Your task to perform on an android device: empty trash in the gmail app Image 0: 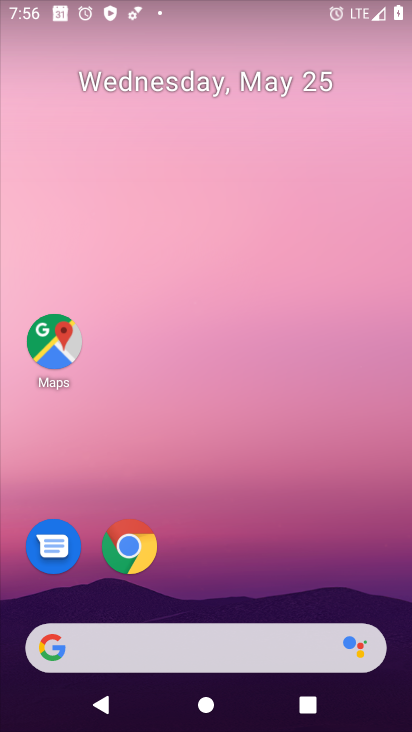
Step 0: drag from (394, 610) to (389, 261)
Your task to perform on an android device: empty trash in the gmail app Image 1: 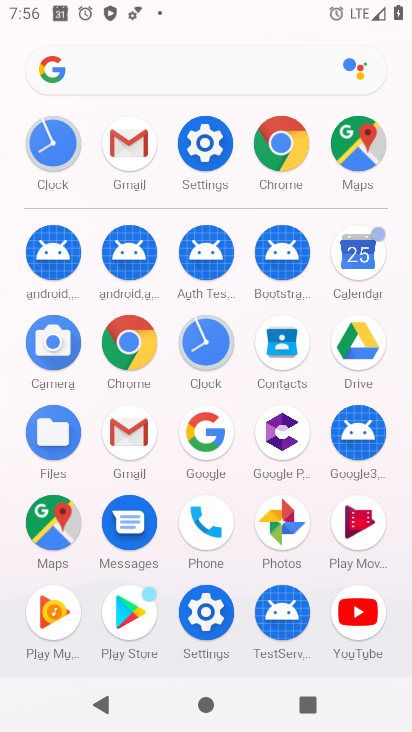
Step 1: click (124, 448)
Your task to perform on an android device: empty trash in the gmail app Image 2: 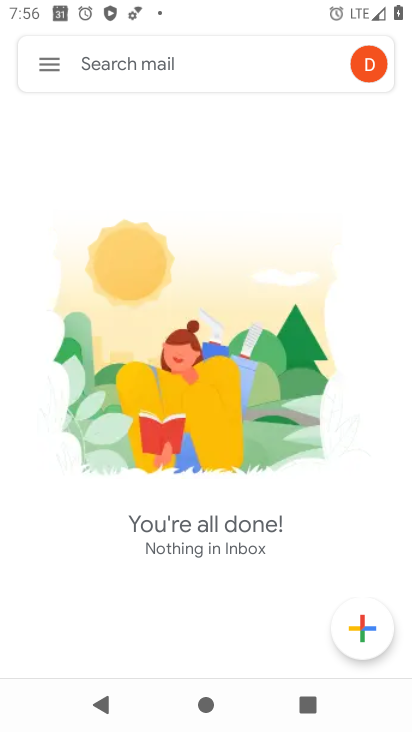
Step 2: click (55, 70)
Your task to perform on an android device: empty trash in the gmail app Image 3: 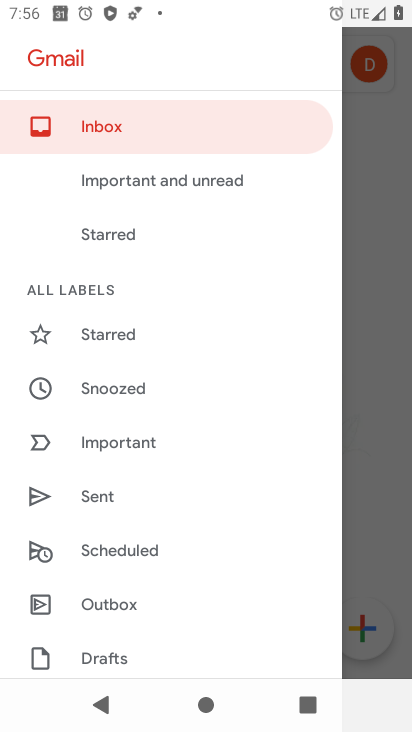
Step 3: drag from (282, 363) to (283, 302)
Your task to perform on an android device: empty trash in the gmail app Image 4: 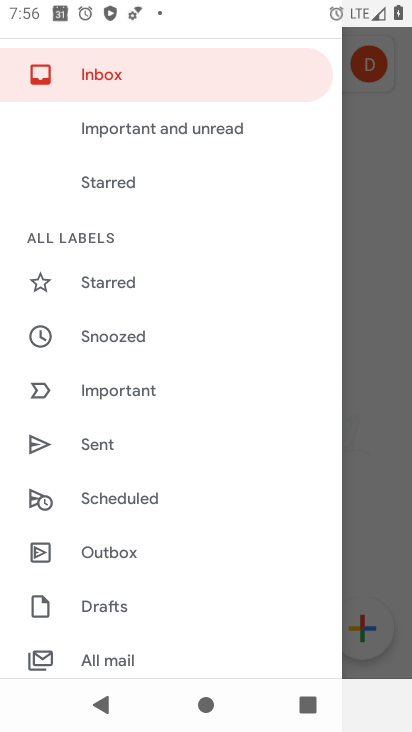
Step 4: drag from (283, 373) to (288, 302)
Your task to perform on an android device: empty trash in the gmail app Image 5: 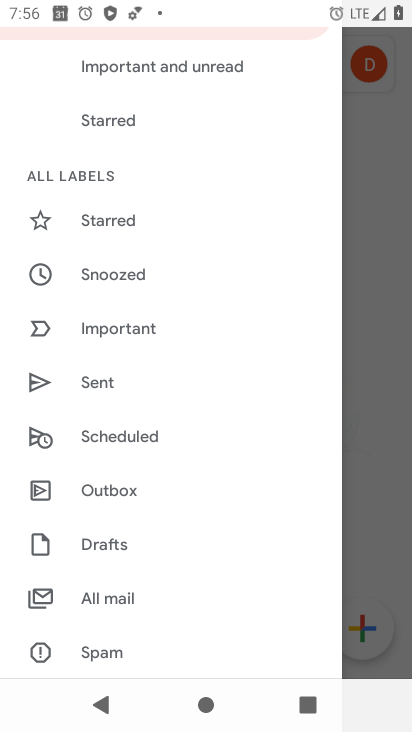
Step 5: drag from (282, 384) to (282, 321)
Your task to perform on an android device: empty trash in the gmail app Image 6: 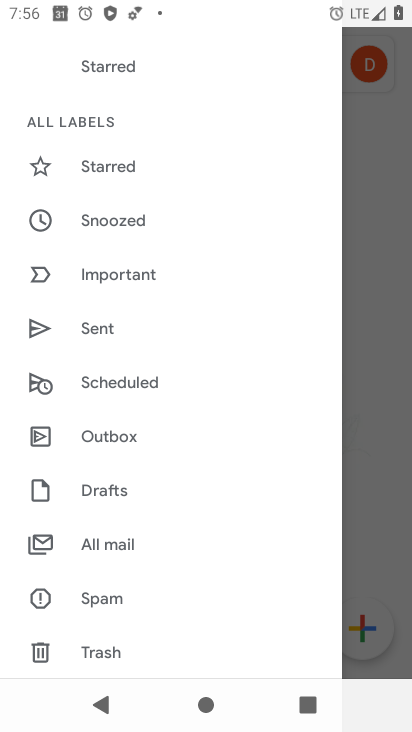
Step 6: drag from (284, 393) to (284, 331)
Your task to perform on an android device: empty trash in the gmail app Image 7: 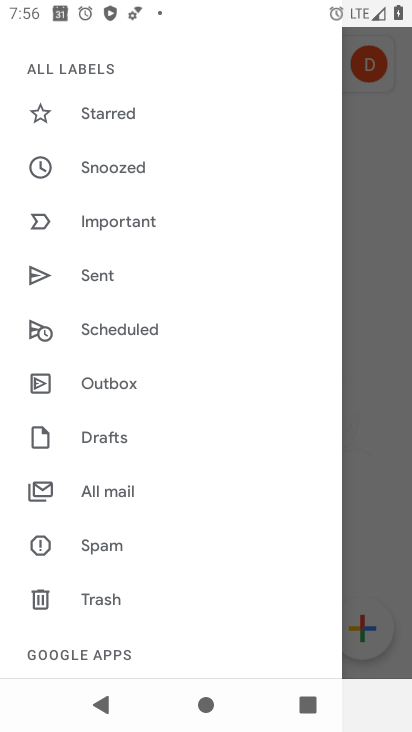
Step 7: drag from (283, 387) to (293, 316)
Your task to perform on an android device: empty trash in the gmail app Image 8: 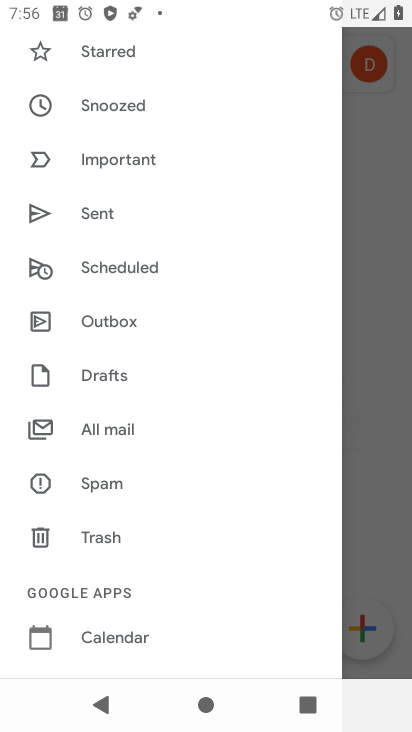
Step 8: drag from (288, 443) to (294, 387)
Your task to perform on an android device: empty trash in the gmail app Image 9: 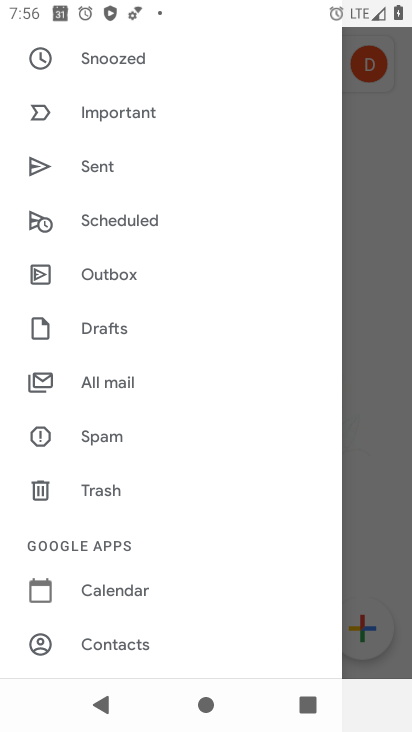
Step 9: drag from (288, 447) to (293, 384)
Your task to perform on an android device: empty trash in the gmail app Image 10: 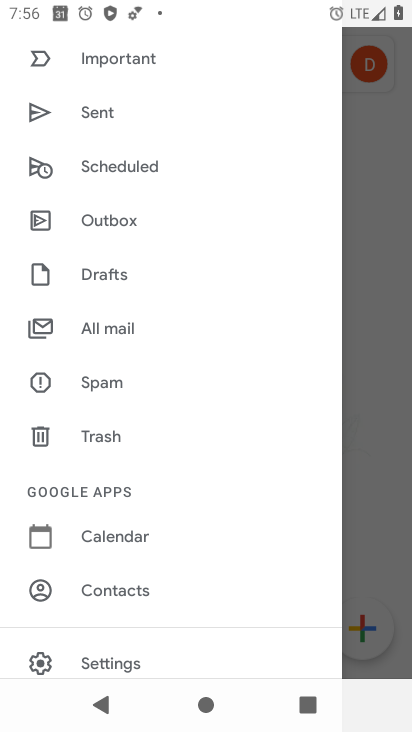
Step 10: drag from (292, 427) to (290, 362)
Your task to perform on an android device: empty trash in the gmail app Image 11: 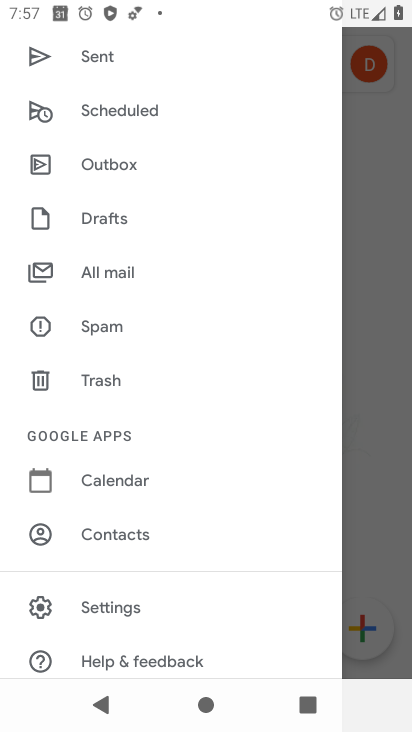
Step 11: drag from (283, 405) to (281, 359)
Your task to perform on an android device: empty trash in the gmail app Image 12: 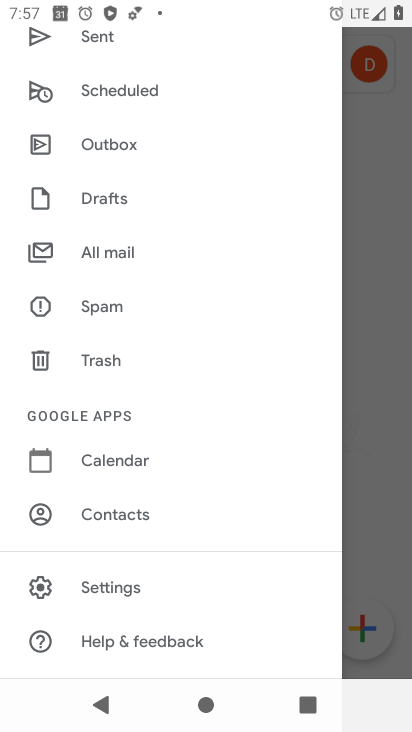
Step 12: click (133, 363)
Your task to perform on an android device: empty trash in the gmail app Image 13: 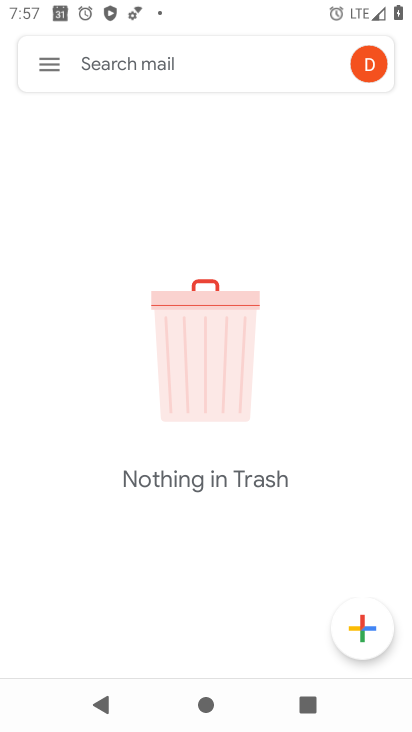
Step 13: task complete